Your task to perform on an android device: check the backup settings in the google photos Image 0: 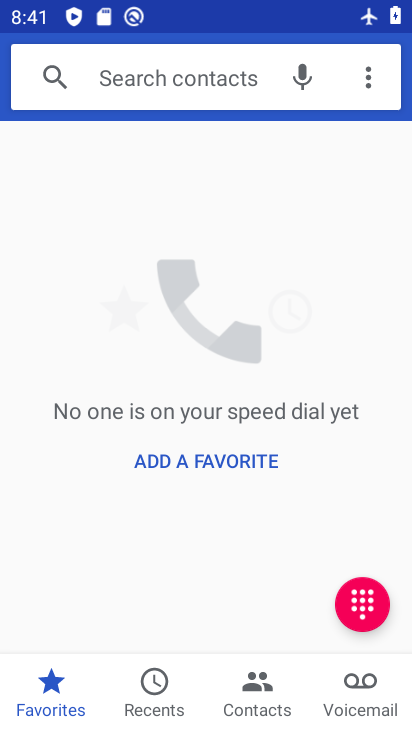
Step 0: press home button
Your task to perform on an android device: check the backup settings in the google photos Image 1: 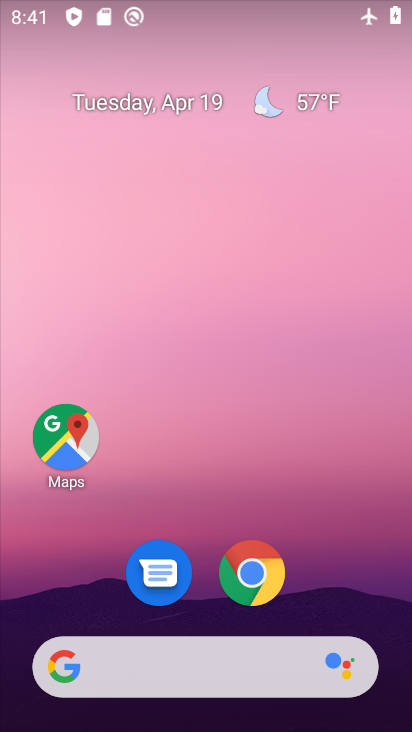
Step 1: drag from (324, 382) to (281, 101)
Your task to perform on an android device: check the backup settings in the google photos Image 2: 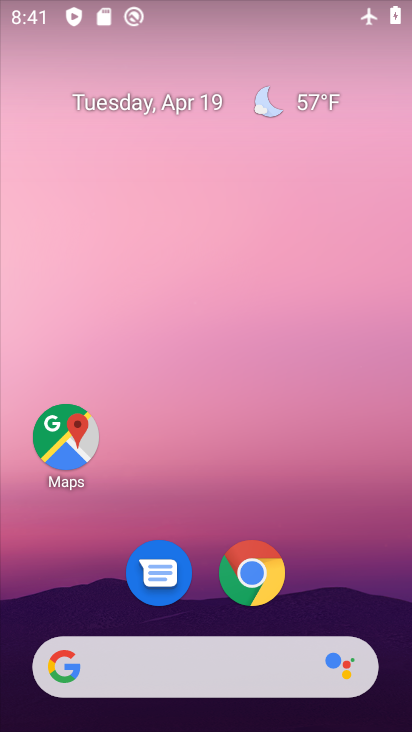
Step 2: drag from (319, 594) to (263, 0)
Your task to perform on an android device: check the backup settings in the google photos Image 3: 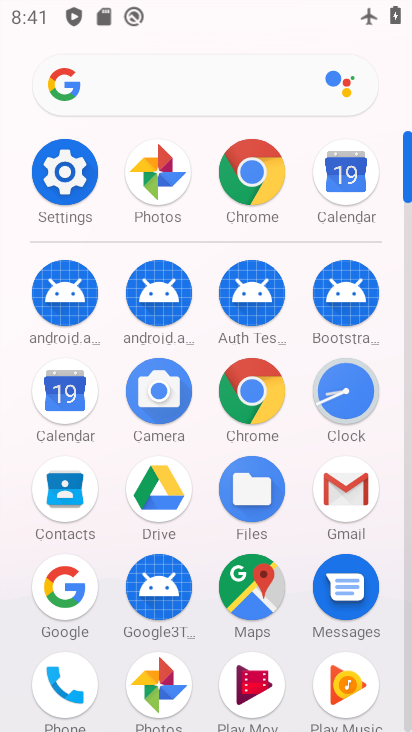
Step 3: click (151, 180)
Your task to perform on an android device: check the backup settings in the google photos Image 4: 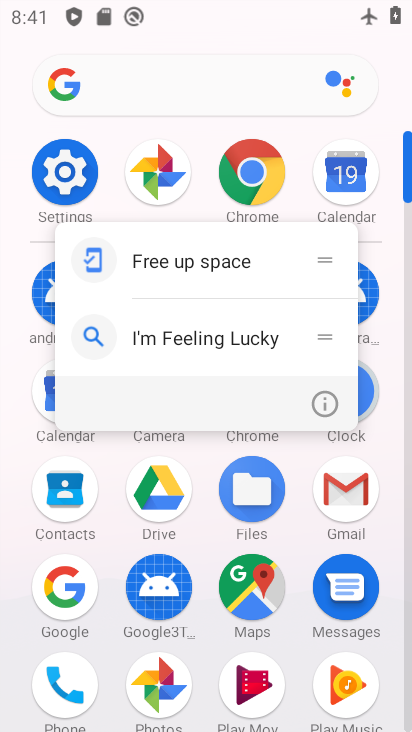
Step 4: click (151, 180)
Your task to perform on an android device: check the backup settings in the google photos Image 5: 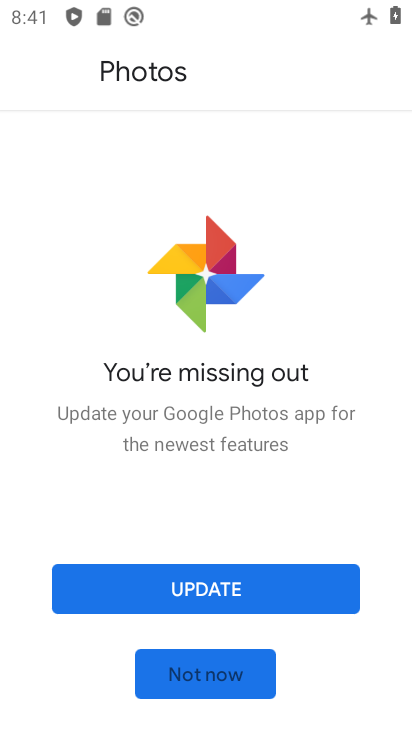
Step 5: click (194, 682)
Your task to perform on an android device: check the backup settings in the google photos Image 6: 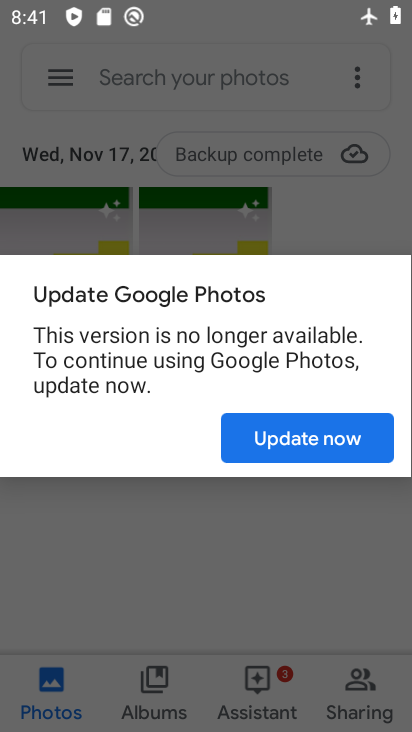
Step 6: click (264, 538)
Your task to perform on an android device: check the backup settings in the google photos Image 7: 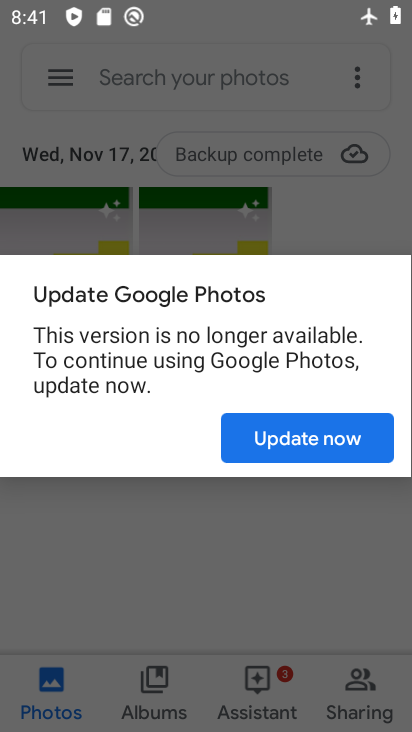
Step 7: click (264, 538)
Your task to perform on an android device: check the backup settings in the google photos Image 8: 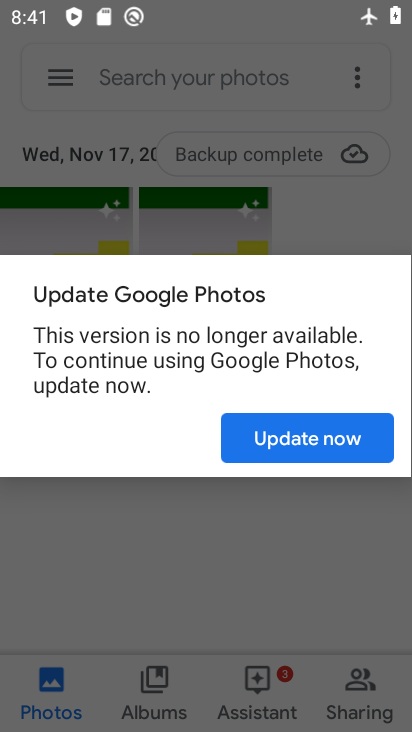
Step 8: click (264, 538)
Your task to perform on an android device: check the backup settings in the google photos Image 9: 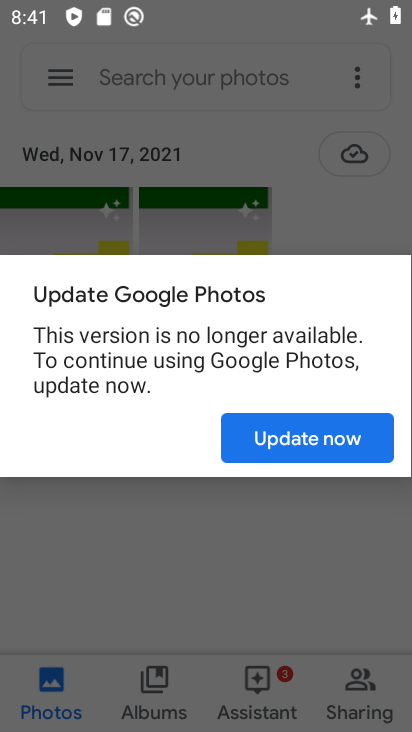
Step 9: click (328, 190)
Your task to perform on an android device: check the backup settings in the google photos Image 10: 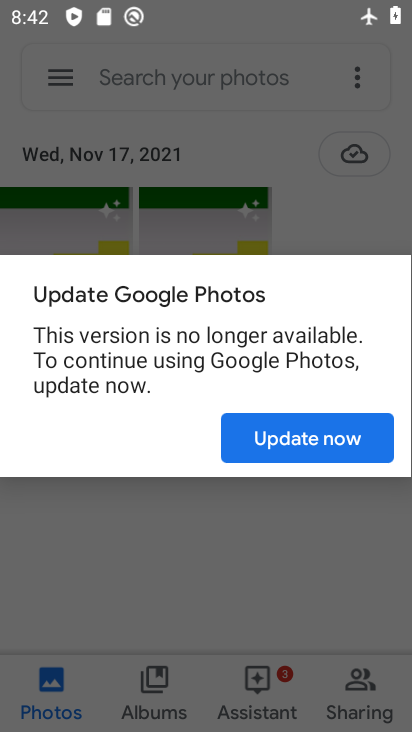
Step 10: click (301, 434)
Your task to perform on an android device: check the backup settings in the google photos Image 11: 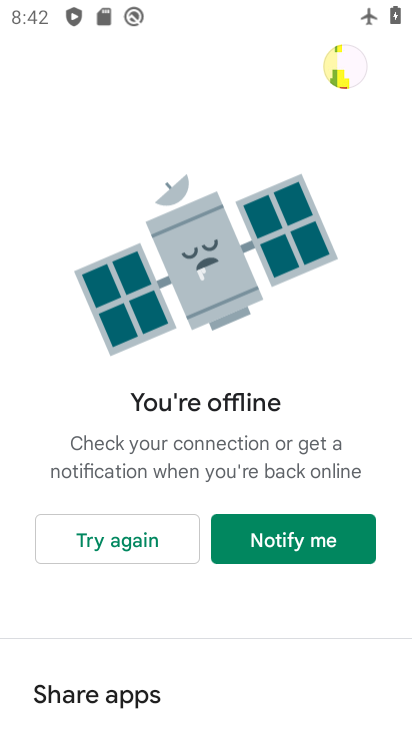
Step 11: press back button
Your task to perform on an android device: check the backup settings in the google photos Image 12: 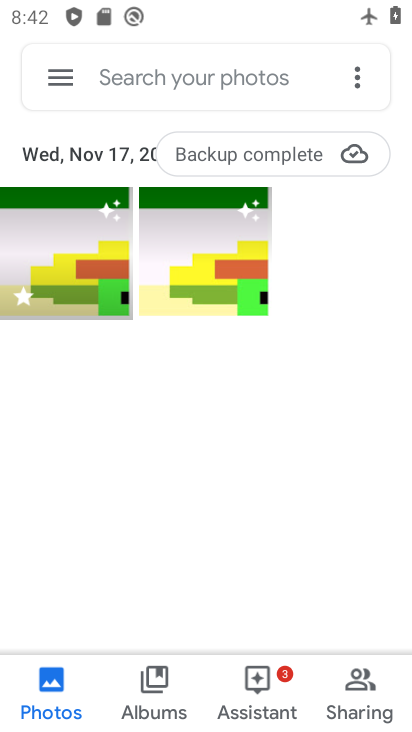
Step 12: click (55, 77)
Your task to perform on an android device: check the backup settings in the google photos Image 13: 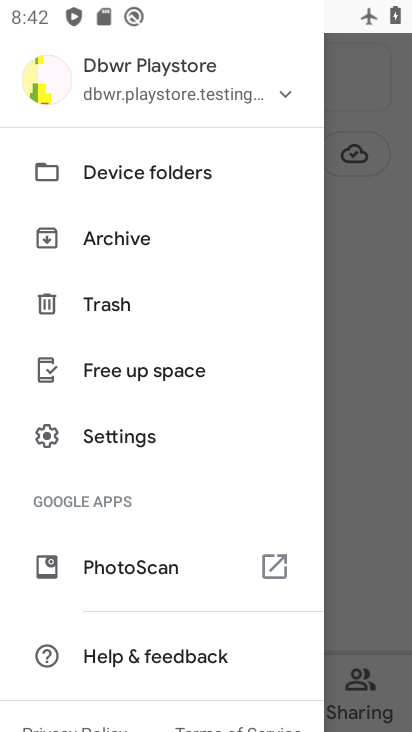
Step 13: click (114, 441)
Your task to perform on an android device: check the backup settings in the google photos Image 14: 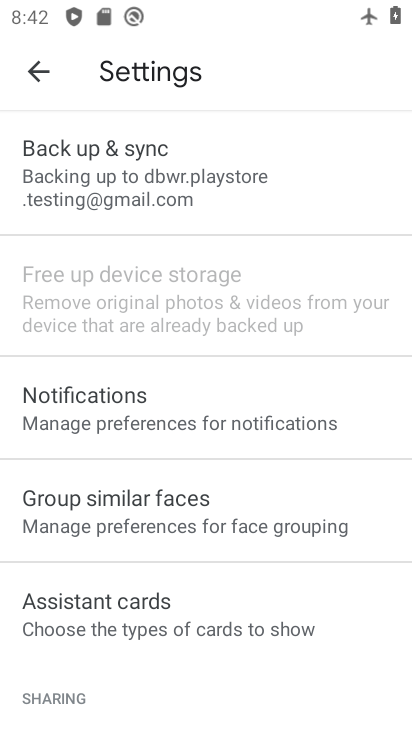
Step 14: click (186, 169)
Your task to perform on an android device: check the backup settings in the google photos Image 15: 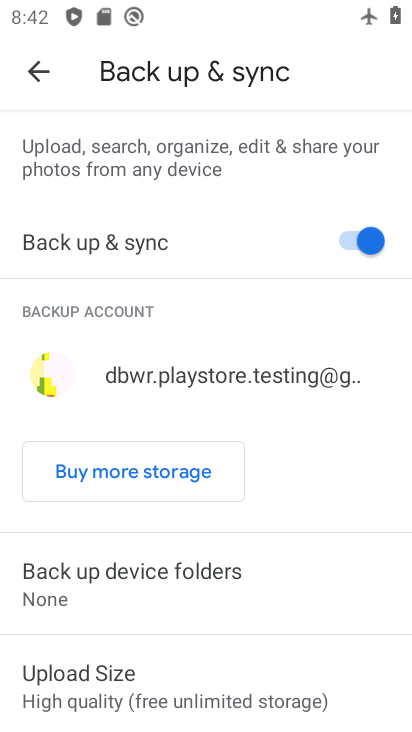
Step 15: task complete